Your task to perform on an android device: turn off sleep mode Image 0: 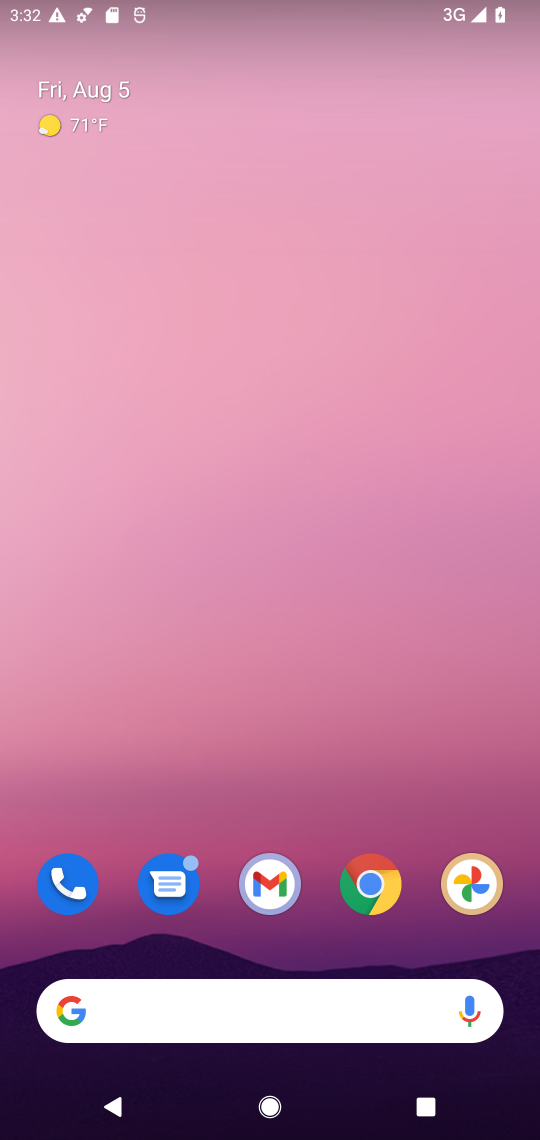
Step 0: drag from (455, 951) to (268, 47)
Your task to perform on an android device: turn off sleep mode Image 1: 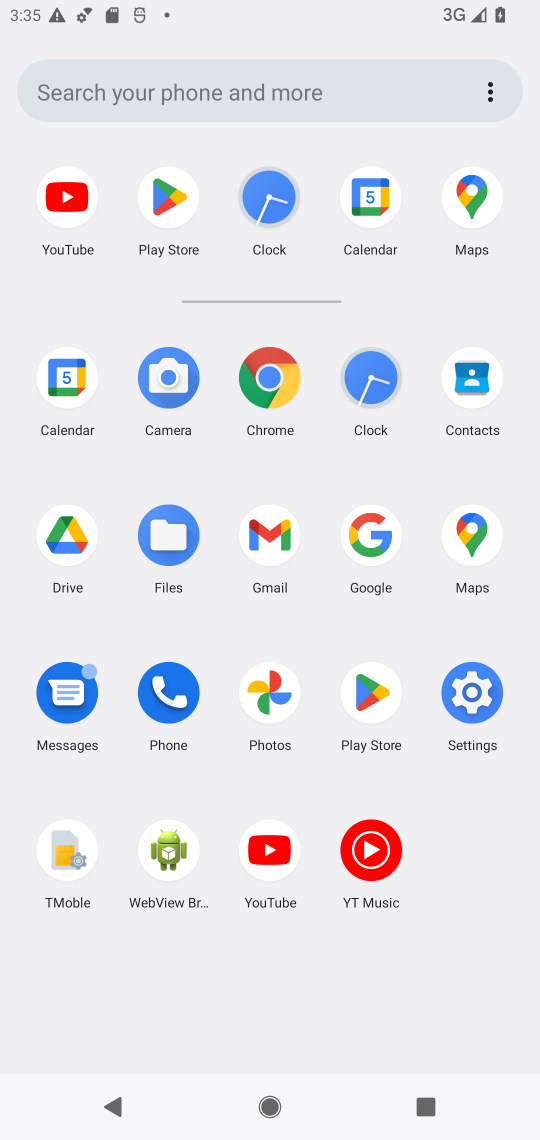
Step 1: click (471, 686)
Your task to perform on an android device: turn off sleep mode Image 2: 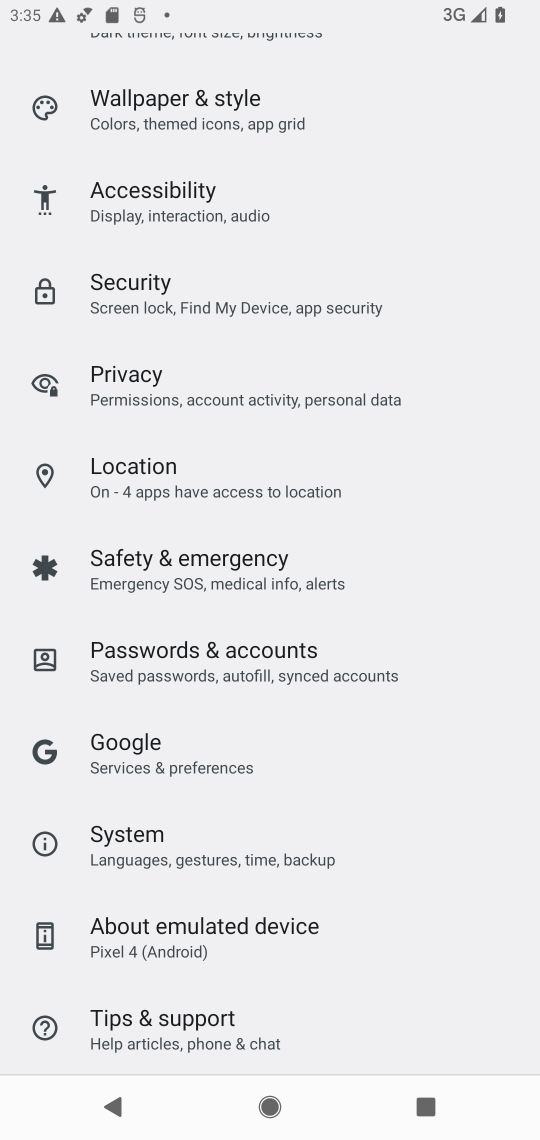
Step 2: task complete